Your task to perform on an android device: Go to Google Image 0: 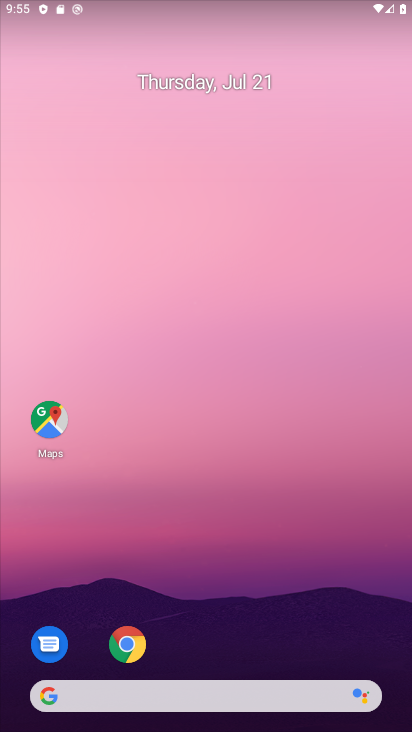
Step 0: click (47, 695)
Your task to perform on an android device: Go to Google Image 1: 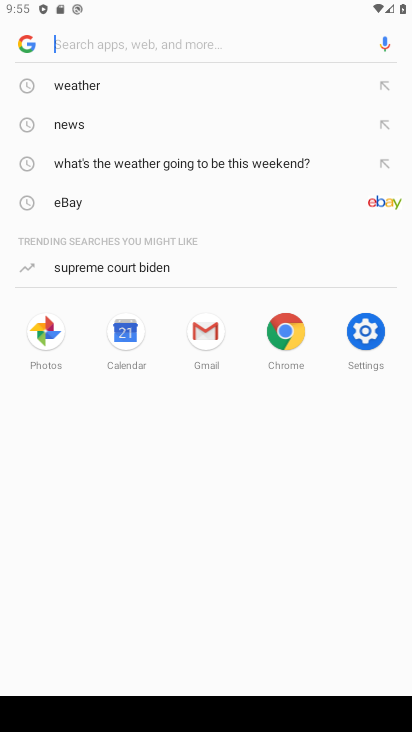
Step 1: click (16, 47)
Your task to perform on an android device: Go to Google Image 2: 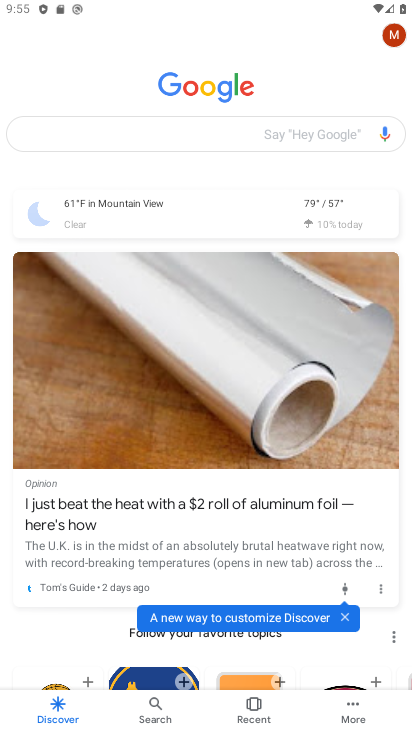
Step 2: task complete